Your task to perform on an android device: Open the Play Movies app and select the watchlist tab. Image 0: 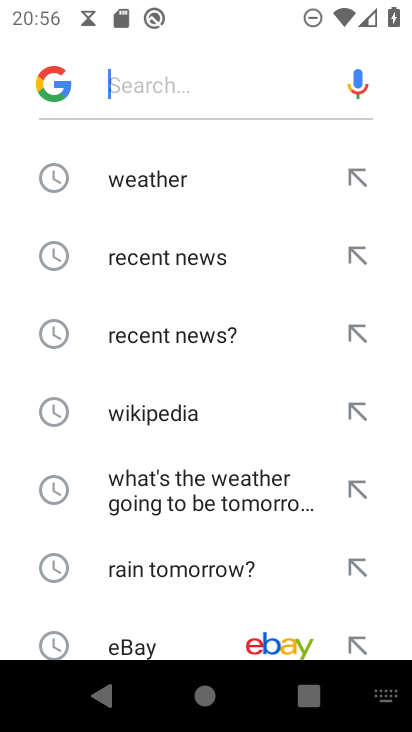
Step 0: press home button
Your task to perform on an android device: Open the Play Movies app and select the watchlist tab. Image 1: 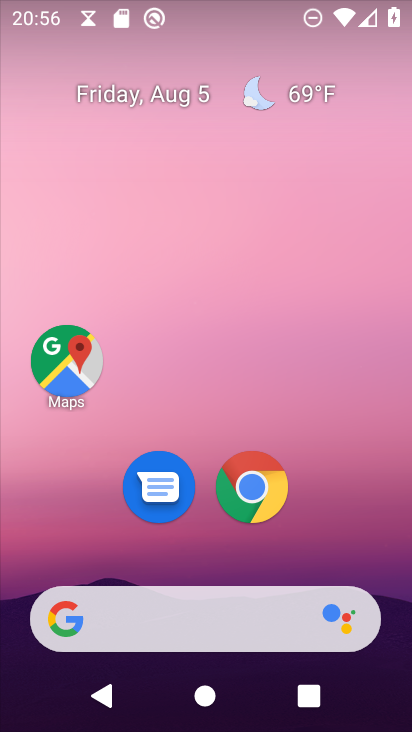
Step 1: drag from (170, 627) to (262, 70)
Your task to perform on an android device: Open the Play Movies app and select the watchlist tab. Image 2: 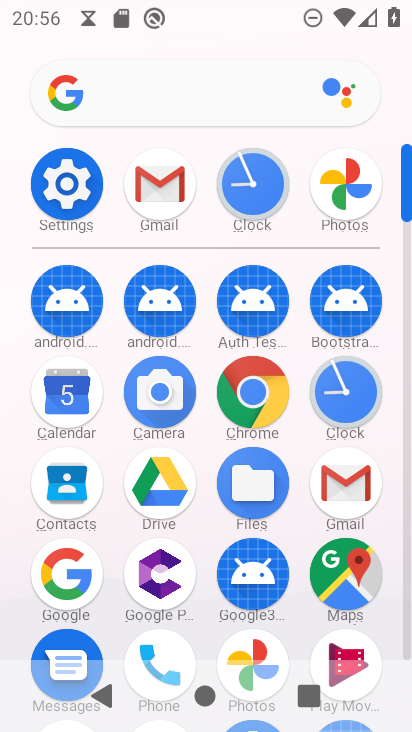
Step 2: drag from (210, 609) to (208, 338)
Your task to perform on an android device: Open the Play Movies app and select the watchlist tab. Image 3: 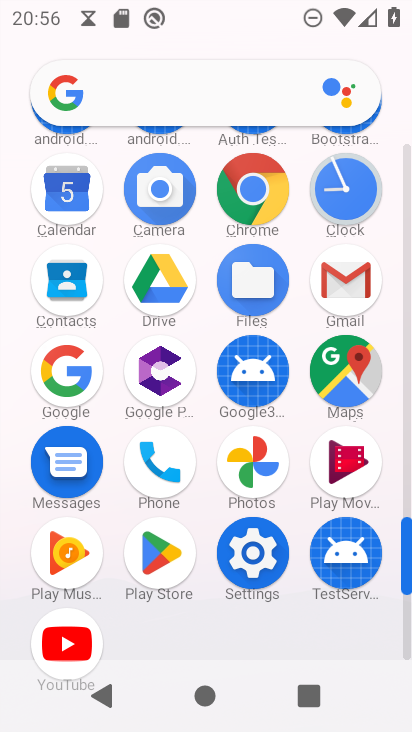
Step 3: click (344, 461)
Your task to perform on an android device: Open the Play Movies app and select the watchlist tab. Image 4: 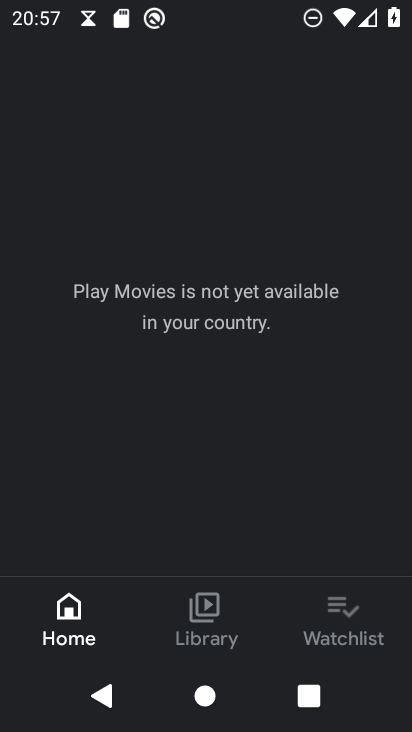
Step 4: click (343, 603)
Your task to perform on an android device: Open the Play Movies app and select the watchlist tab. Image 5: 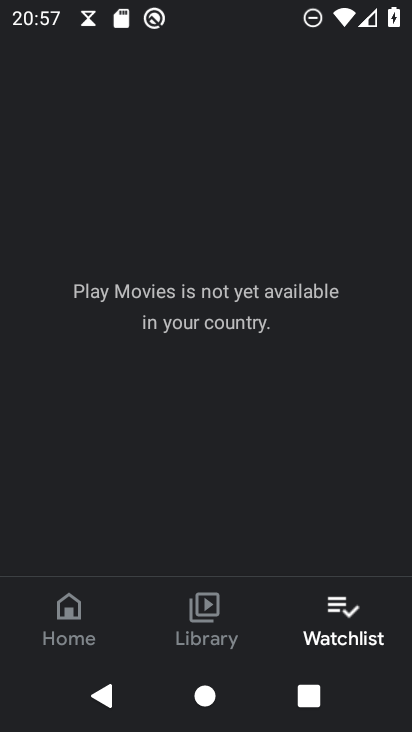
Step 5: task complete